Your task to perform on an android device: Find coffee shops on Maps Image 0: 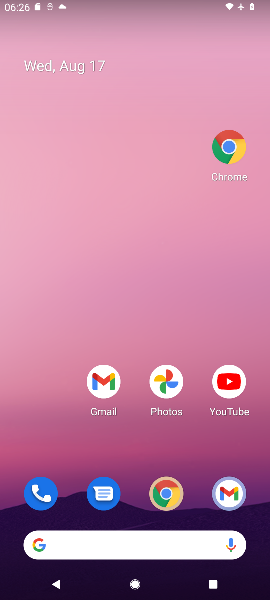
Step 0: press home button
Your task to perform on an android device: Find coffee shops on Maps Image 1: 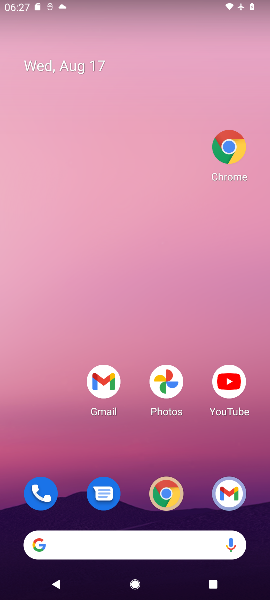
Step 1: drag from (149, 495) to (201, 44)
Your task to perform on an android device: Find coffee shops on Maps Image 2: 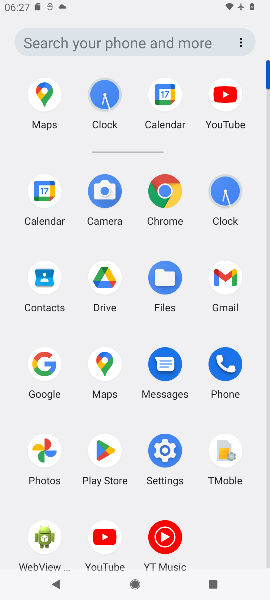
Step 2: click (41, 93)
Your task to perform on an android device: Find coffee shops on Maps Image 3: 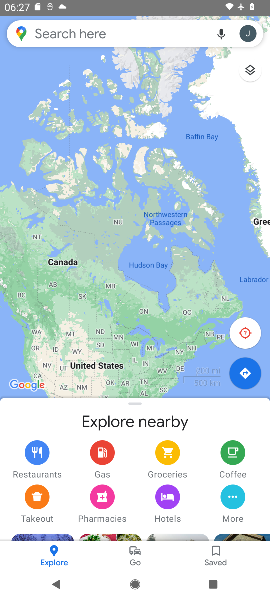
Step 3: click (120, 35)
Your task to perform on an android device: Find coffee shops on Maps Image 4: 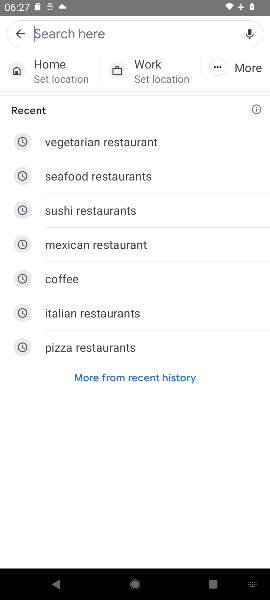
Step 4: type "coffee shops"
Your task to perform on an android device: Find coffee shops on Maps Image 5: 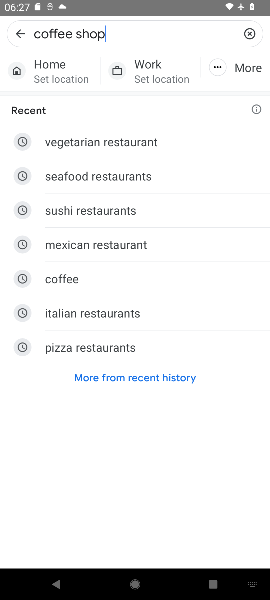
Step 5: press enter
Your task to perform on an android device: Find coffee shops on Maps Image 6: 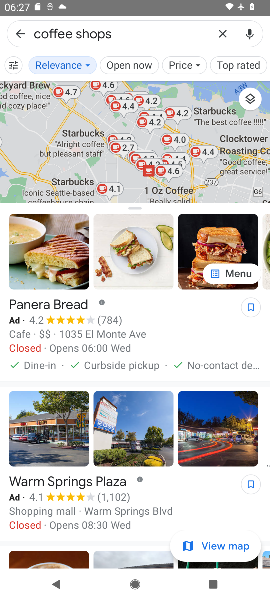
Step 6: task complete